Your task to perform on an android device: Do I have any events today? Image 0: 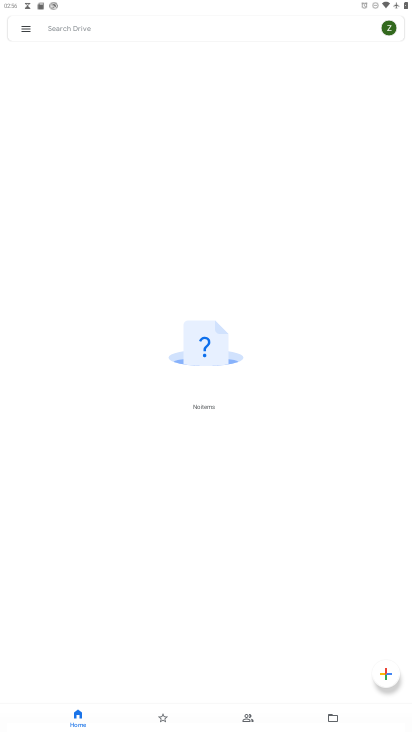
Step 0: press home button
Your task to perform on an android device: Do I have any events today? Image 1: 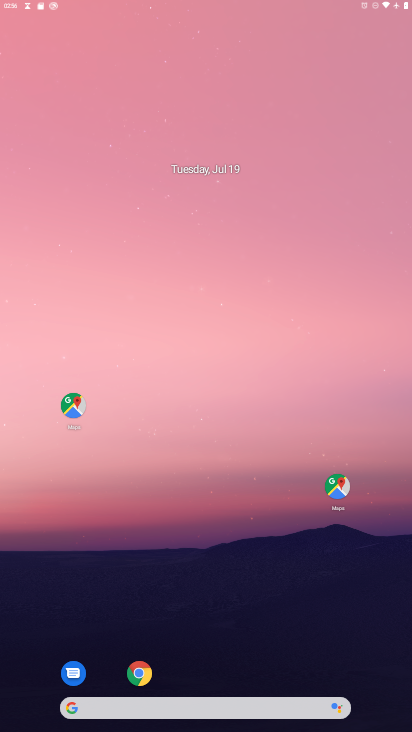
Step 1: drag from (230, 717) to (215, 252)
Your task to perform on an android device: Do I have any events today? Image 2: 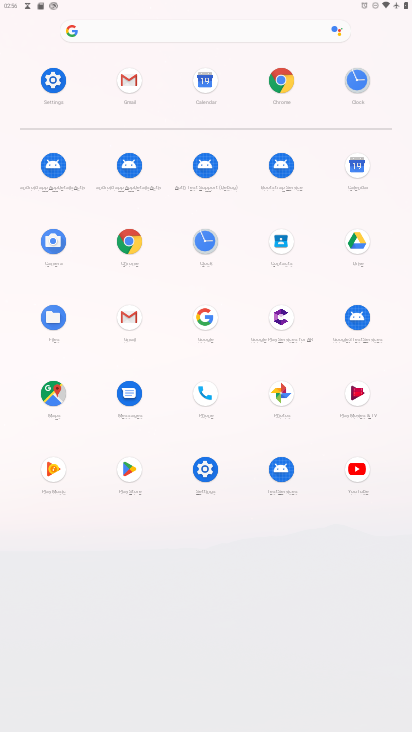
Step 2: click (362, 161)
Your task to perform on an android device: Do I have any events today? Image 3: 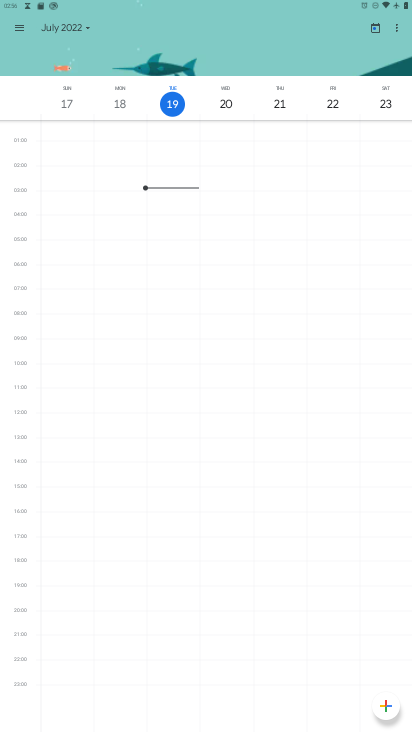
Step 3: click (172, 103)
Your task to perform on an android device: Do I have any events today? Image 4: 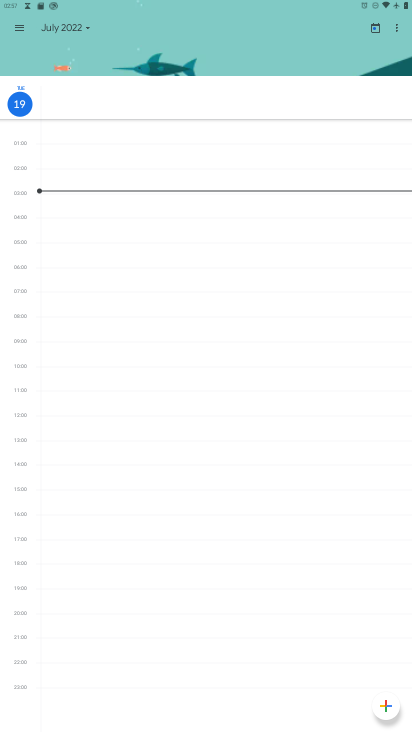
Step 4: task complete